Your task to perform on an android device: change timer sound Image 0: 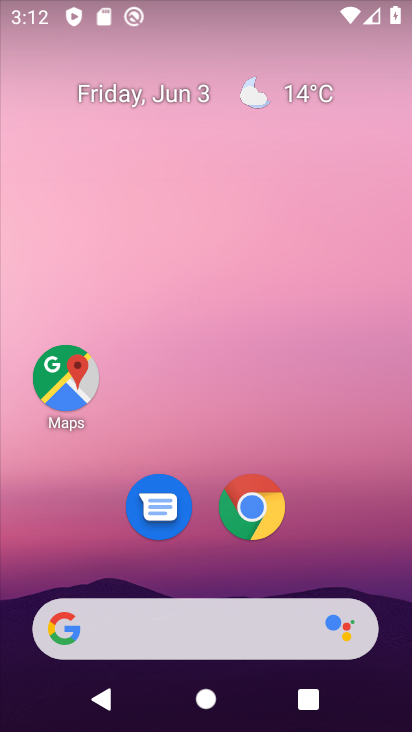
Step 0: drag from (319, 490) to (254, 43)
Your task to perform on an android device: change timer sound Image 1: 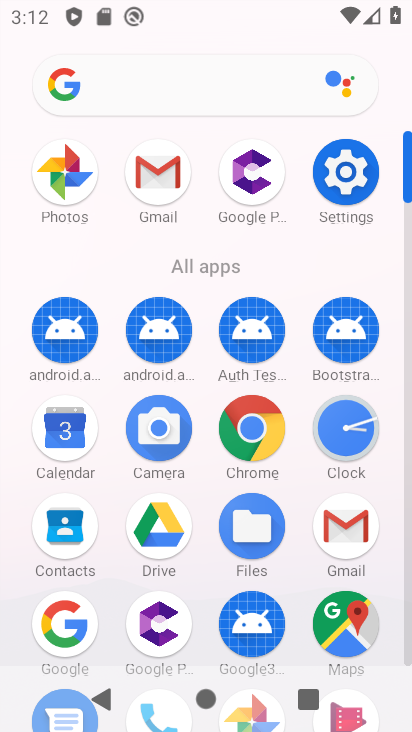
Step 1: click (347, 442)
Your task to perform on an android device: change timer sound Image 2: 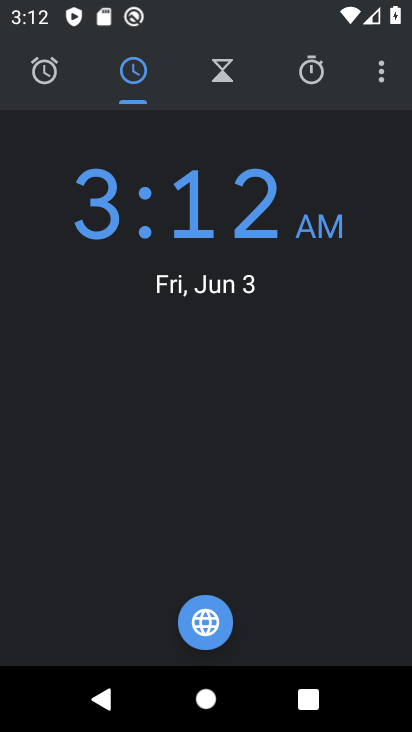
Step 2: click (383, 76)
Your task to perform on an android device: change timer sound Image 3: 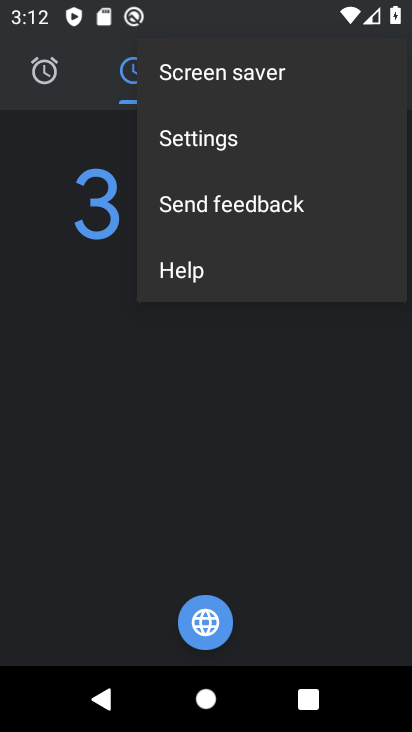
Step 3: click (269, 139)
Your task to perform on an android device: change timer sound Image 4: 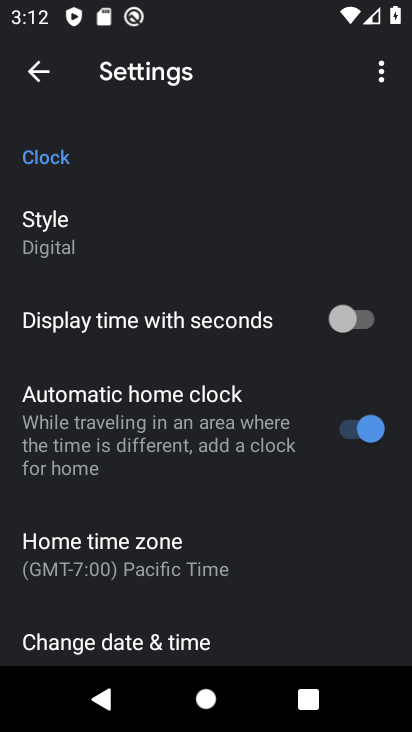
Step 4: drag from (324, 592) to (246, 114)
Your task to perform on an android device: change timer sound Image 5: 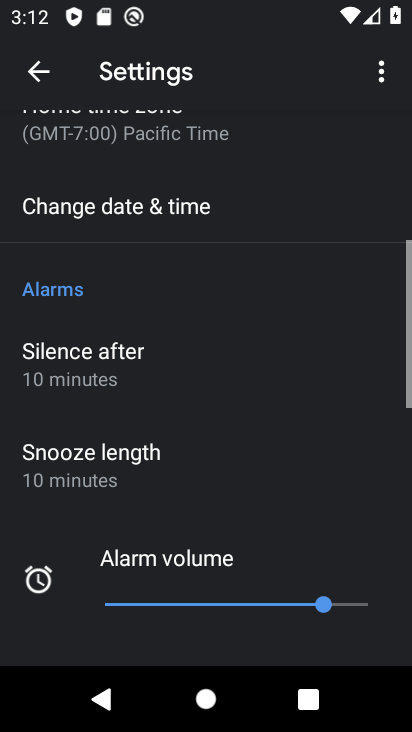
Step 5: drag from (265, 463) to (236, 60)
Your task to perform on an android device: change timer sound Image 6: 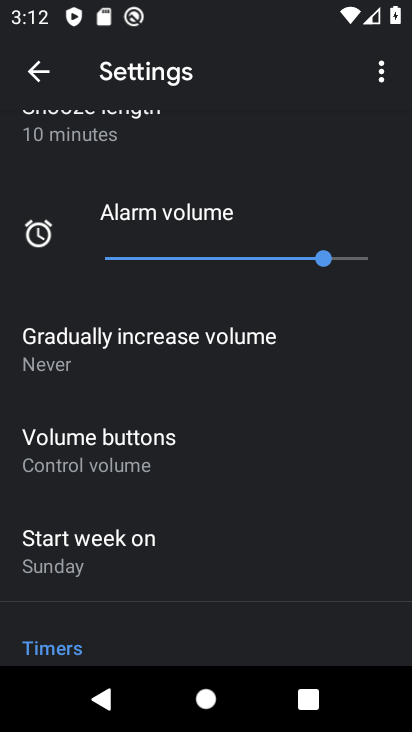
Step 6: drag from (272, 570) to (262, 339)
Your task to perform on an android device: change timer sound Image 7: 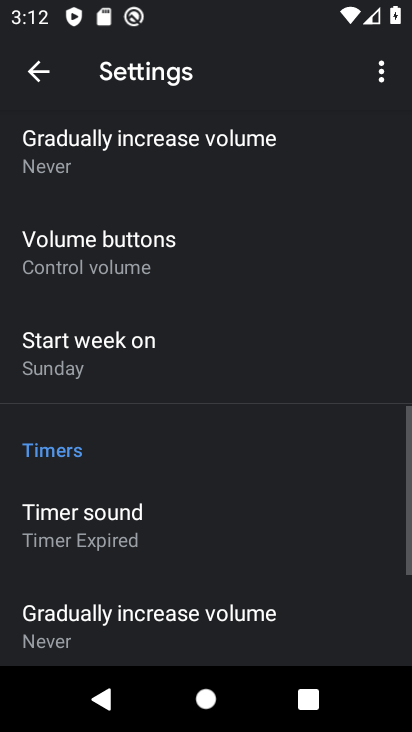
Step 7: click (158, 536)
Your task to perform on an android device: change timer sound Image 8: 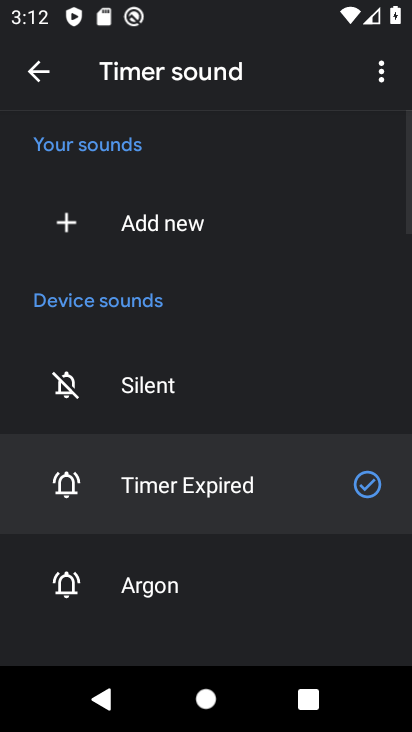
Step 8: click (150, 587)
Your task to perform on an android device: change timer sound Image 9: 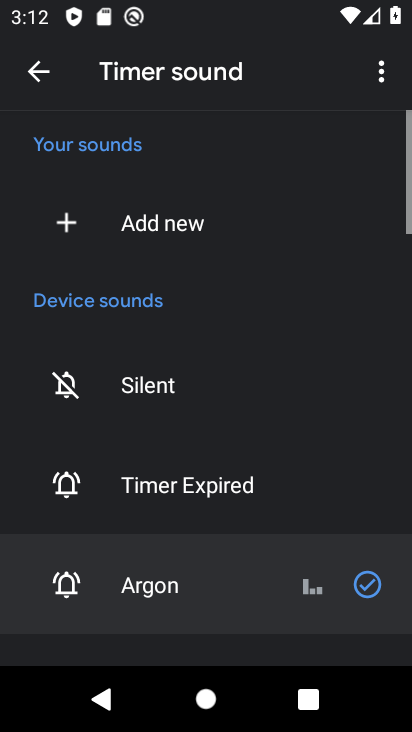
Step 9: task complete